Your task to perform on an android device: Check the news Image 0: 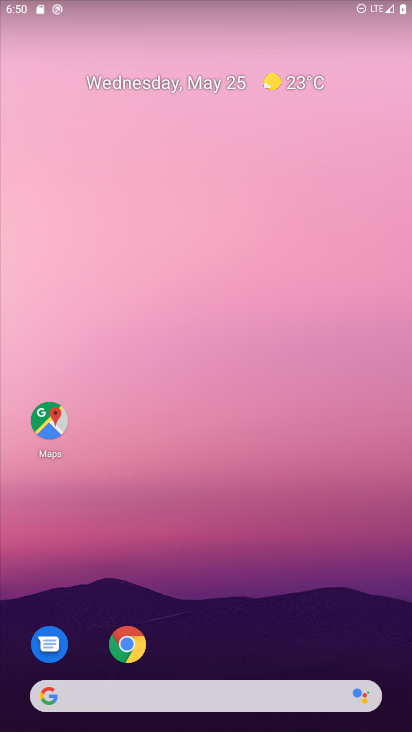
Step 0: drag from (299, 645) to (268, 2)
Your task to perform on an android device: Check the news Image 1: 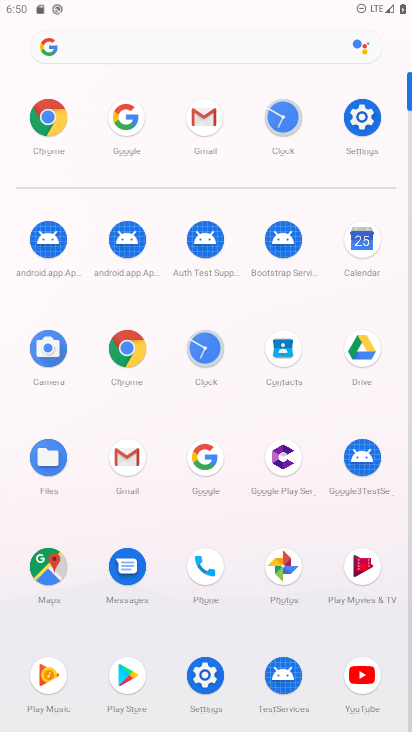
Step 1: click (204, 442)
Your task to perform on an android device: Check the news Image 2: 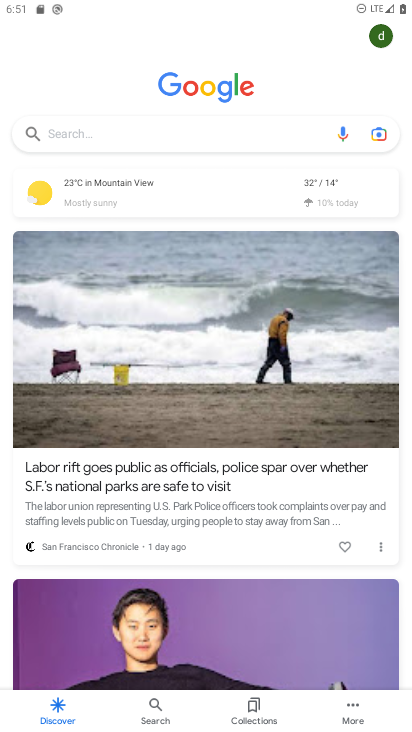
Step 2: click (120, 141)
Your task to perform on an android device: Check the news Image 3: 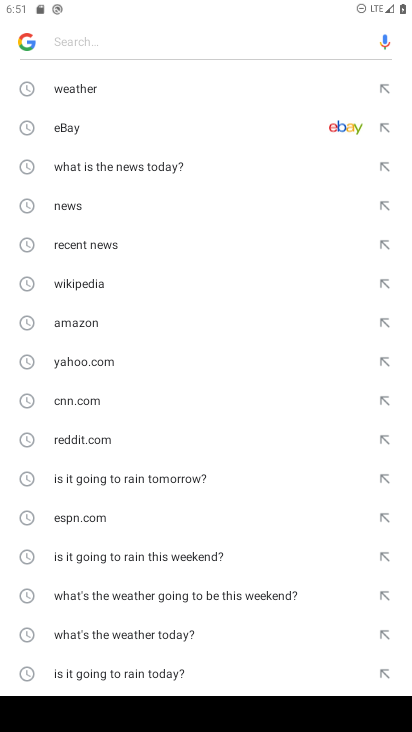
Step 3: click (78, 200)
Your task to perform on an android device: Check the news Image 4: 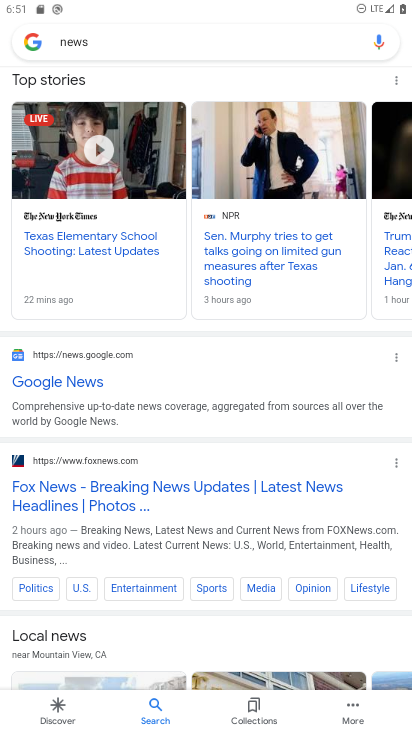
Step 4: task complete